Your task to perform on an android device: What's the weather going to be tomorrow? Image 0: 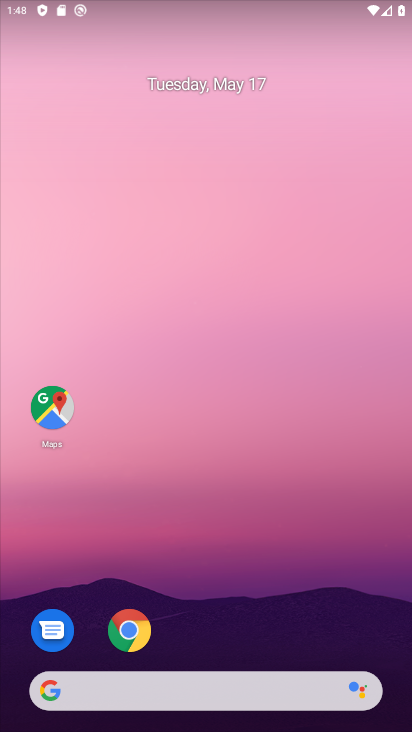
Step 0: press home button
Your task to perform on an android device: What's the weather going to be tomorrow? Image 1: 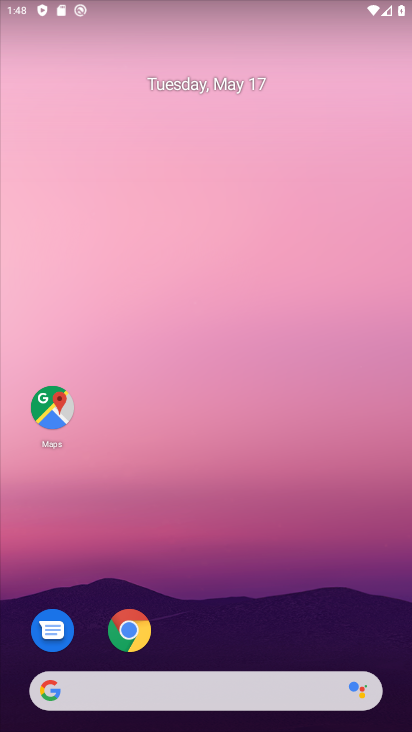
Step 1: click (303, 313)
Your task to perform on an android device: What's the weather going to be tomorrow? Image 2: 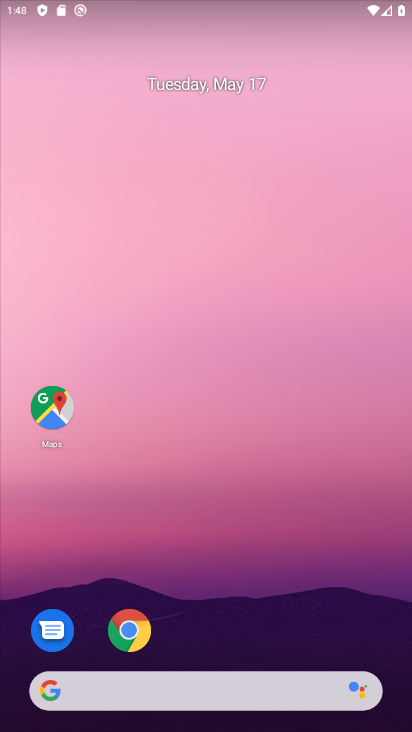
Step 2: drag from (347, 638) to (323, 280)
Your task to perform on an android device: What's the weather going to be tomorrow? Image 3: 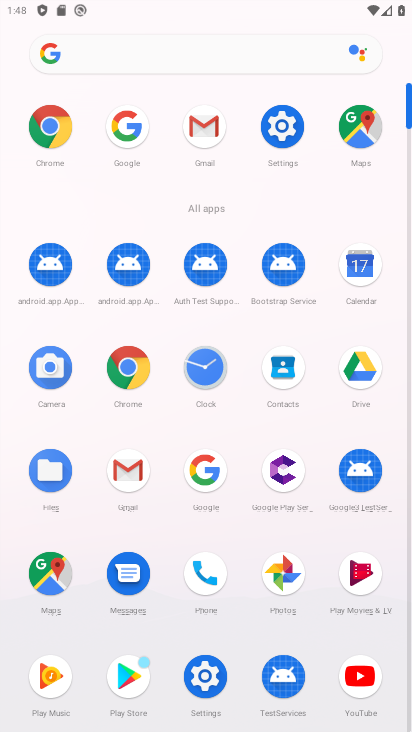
Step 3: click (123, 362)
Your task to perform on an android device: What's the weather going to be tomorrow? Image 4: 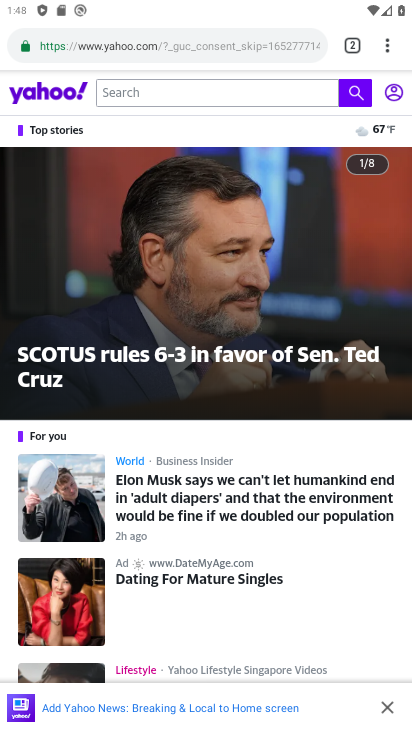
Step 4: click (143, 51)
Your task to perform on an android device: What's the weather going to be tomorrow? Image 5: 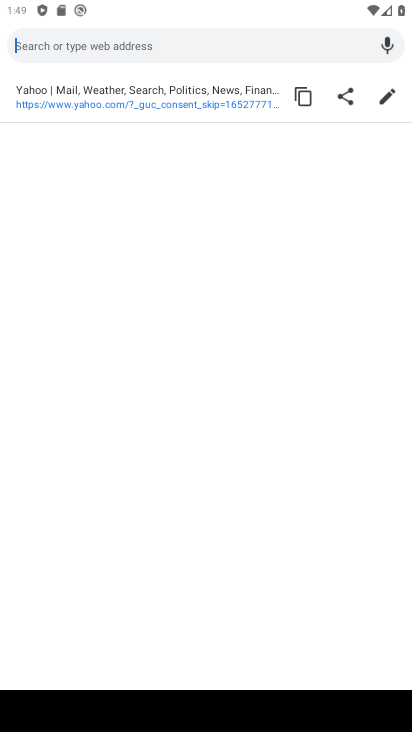
Step 5: type "what's the weather going ro be tomorrow"
Your task to perform on an android device: What's the weather going to be tomorrow? Image 6: 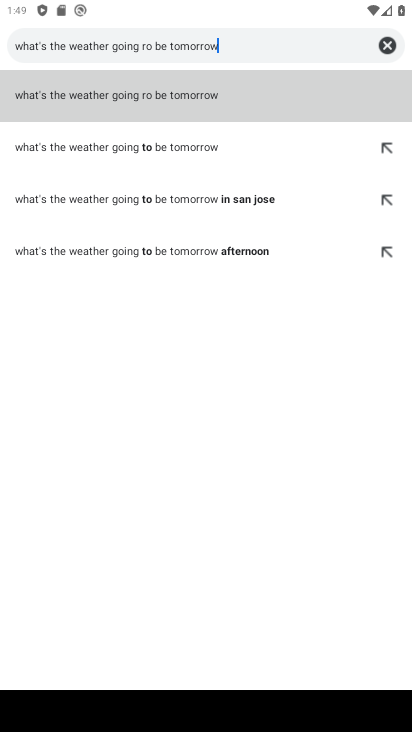
Step 6: click (180, 111)
Your task to perform on an android device: What's the weather going to be tomorrow? Image 7: 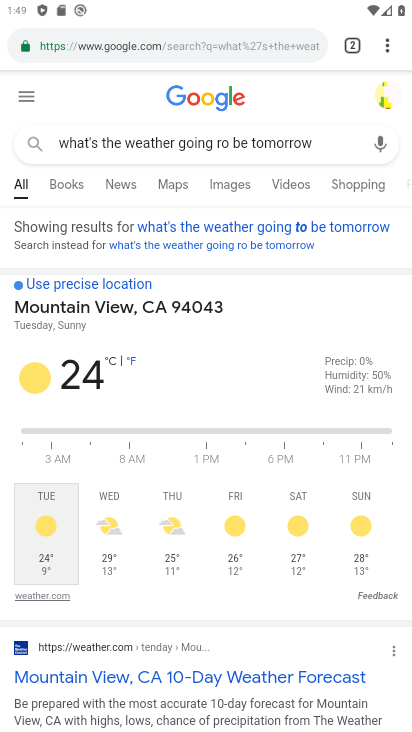
Step 7: task complete